Your task to perform on an android device: turn pop-ups off in chrome Image 0: 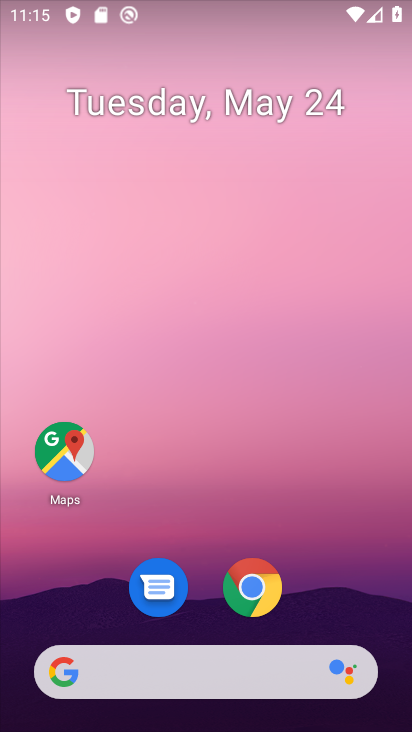
Step 0: click (264, 587)
Your task to perform on an android device: turn pop-ups off in chrome Image 1: 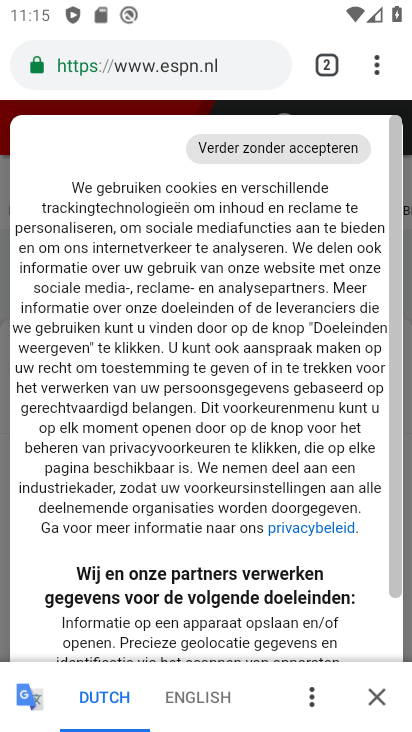
Step 1: click (378, 65)
Your task to perform on an android device: turn pop-ups off in chrome Image 2: 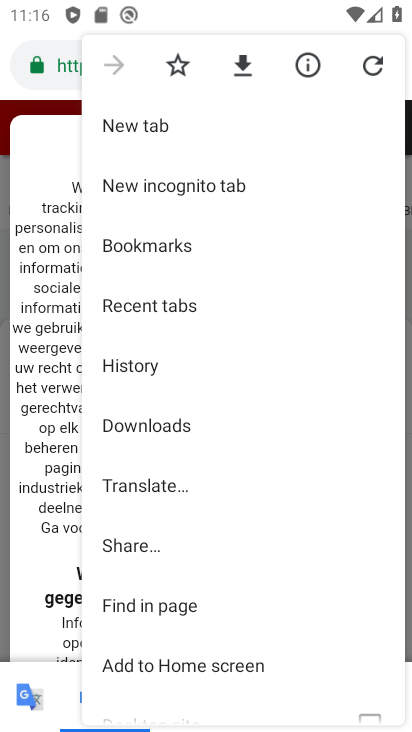
Step 2: drag from (281, 616) to (271, 291)
Your task to perform on an android device: turn pop-ups off in chrome Image 3: 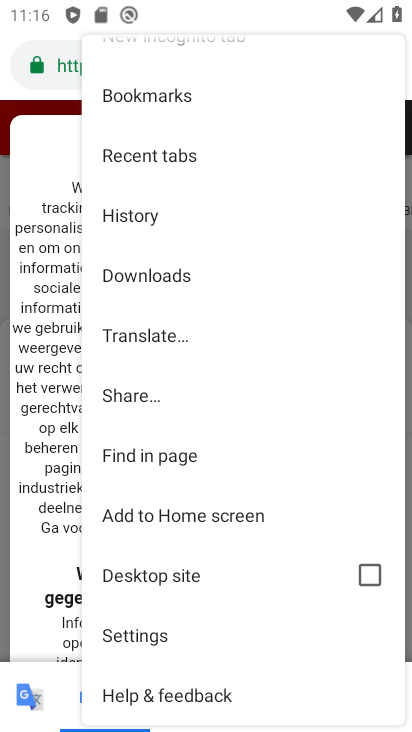
Step 3: click (153, 635)
Your task to perform on an android device: turn pop-ups off in chrome Image 4: 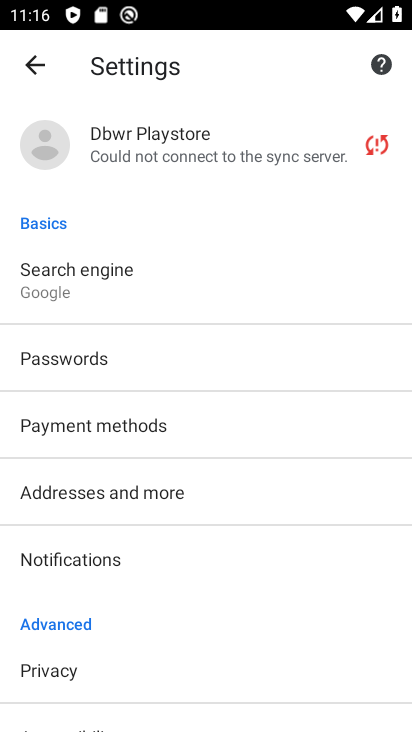
Step 4: drag from (153, 635) to (167, 226)
Your task to perform on an android device: turn pop-ups off in chrome Image 5: 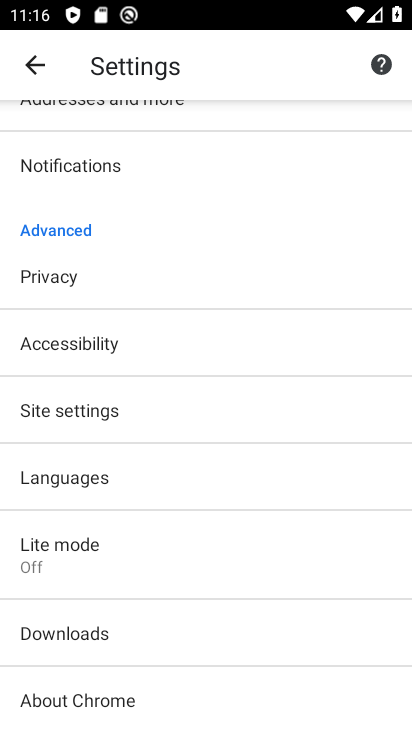
Step 5: click (84, 410)
Your task to perform on an android device: turn pop-ups off in chrome Image 6: 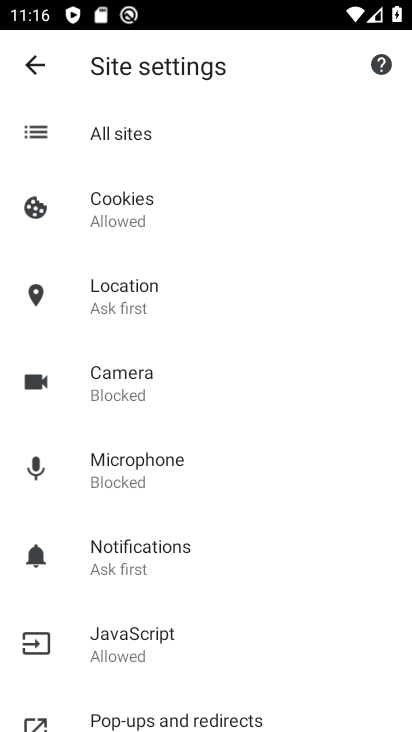
Step 6: drag from (322, 613) to (304, 214)
Your task to perform on an android device: turn pop-ups off in chrome Image 7: 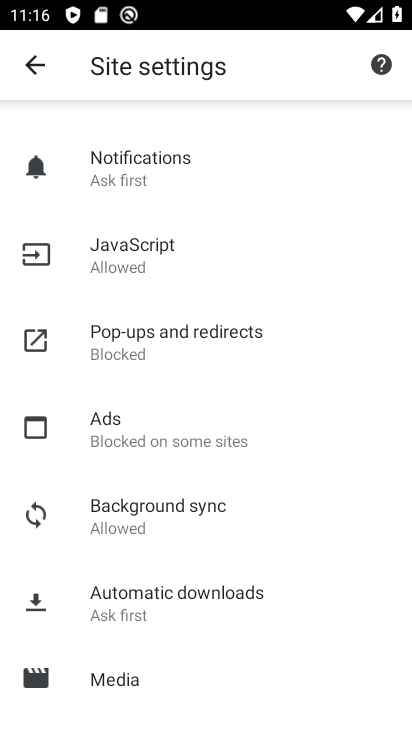
Step 7: click (194, 341)
Your task to perform on an android device: turn pop-ups off in chrome Image 8: 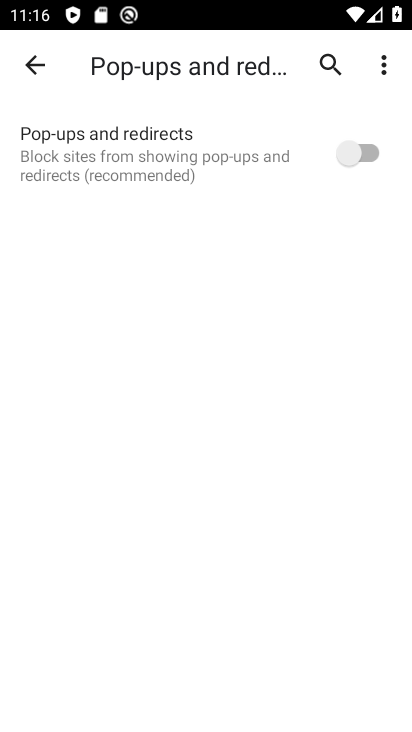
Step 8: task complete